Your task to perform on an android device: Open Google Chrome Image 0: 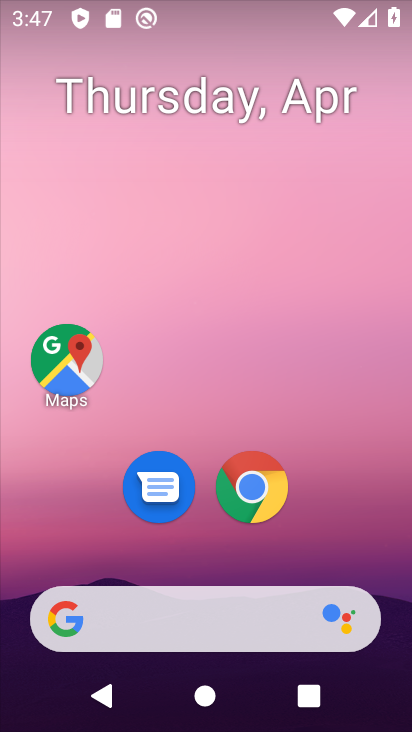
Step 0: click (248, 508)
Your task to perform on an android device: Open Google Chrome Image 1: 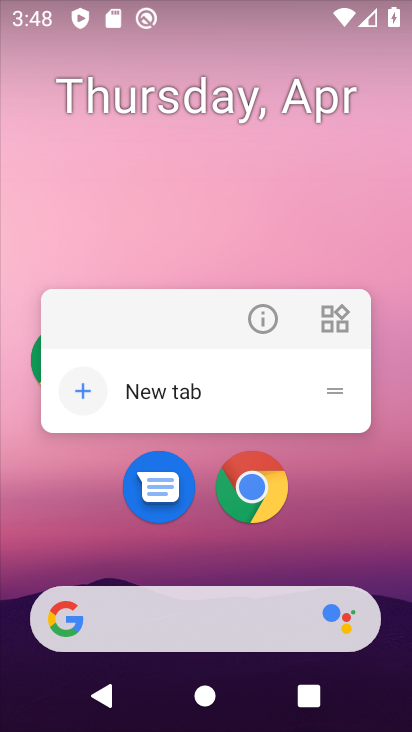
Step 1: click (254, 486)
Your task to perform on an android device: Open Google Chrome Image 2: 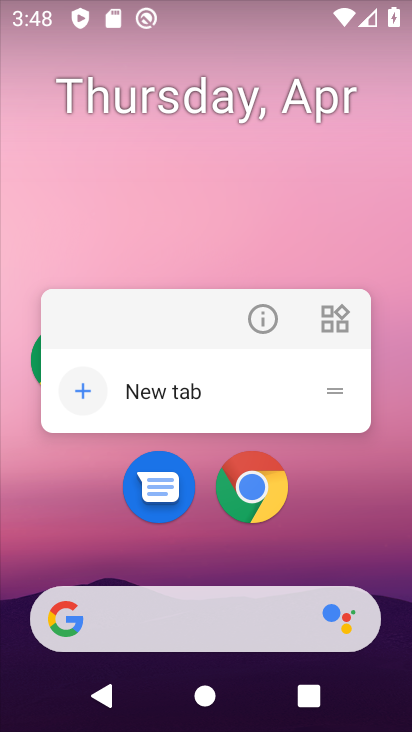
Step 2: click (254, 486)
Your task to perform on an android device: Open Google Chrome Image 3: 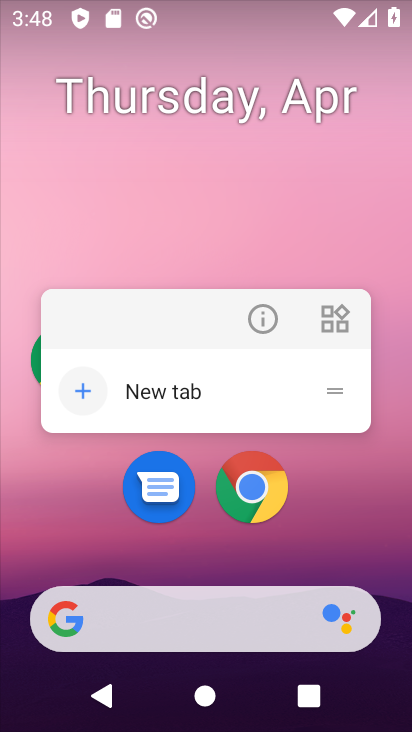
Step 3: click (254, 486)
Your task to perform on an android device: Open Google Chrome Image 4: 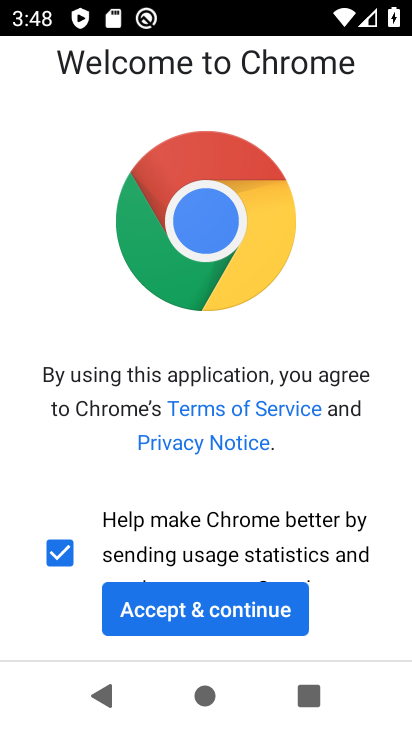
Step 4: click (193, 597)
Your task to perform on an android device: Open Google Chrome Image 5: 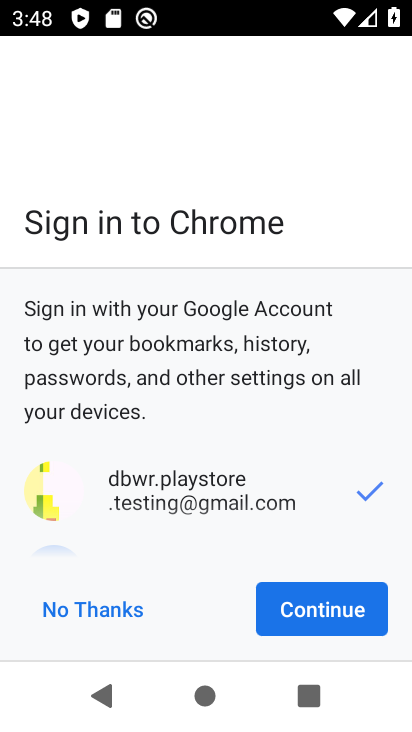
Step 5: click (329, 592)
Your task to perform on an android device: Open Google Chrome Image 6: 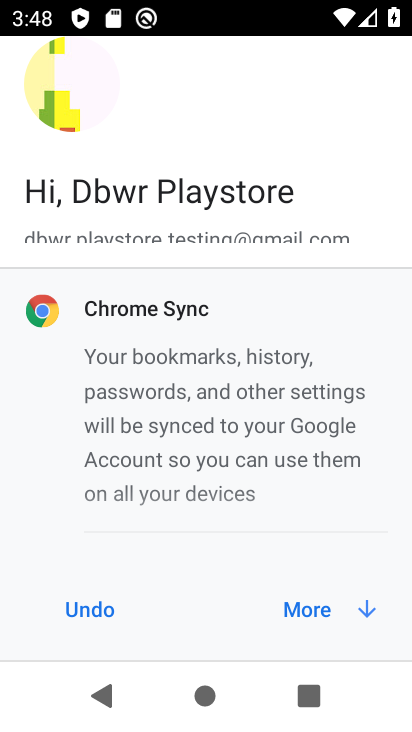
Step 6: click (321, 613)
Your task to perform on an android device: Open Google Chrome Image 7: 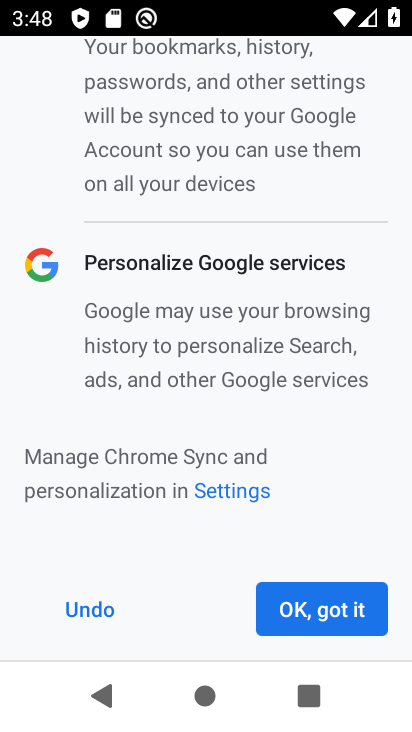
Step 7: click (321, 613)
Your task to perform on an android device: Open Google Chrome Image 8: 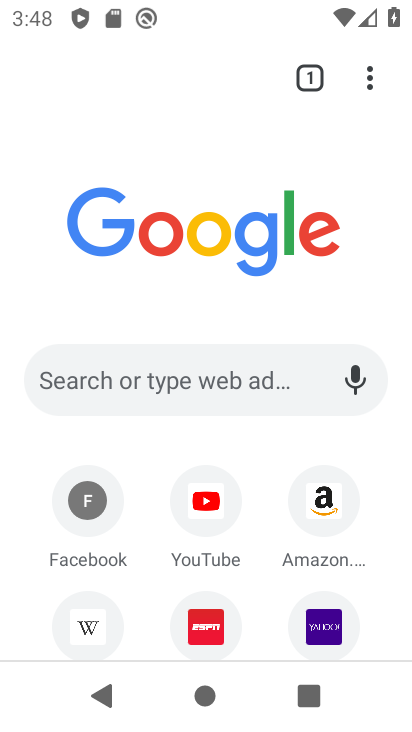
Step 8: task complete